Your task to perform on an android device: change notifications settings Image 0: 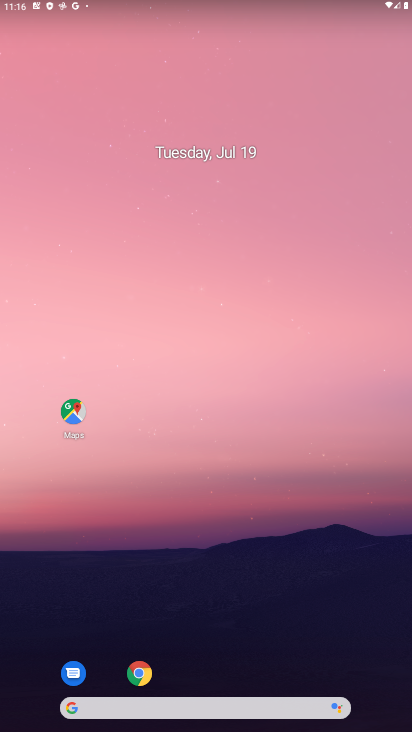
Step 0: drag from (315, 673) to (284, 428)
Your task to perform on an android device: change notifications settings Image 1: 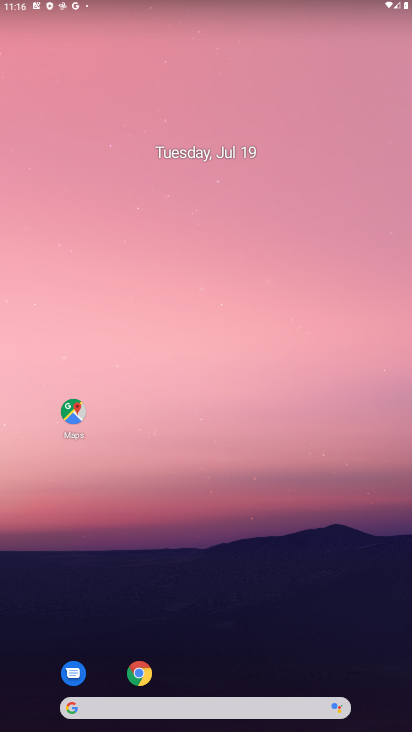
Step 1: drag from (261, 683) to (222, 22)
Your task to perform on an android device: change notifications settings Image 2: 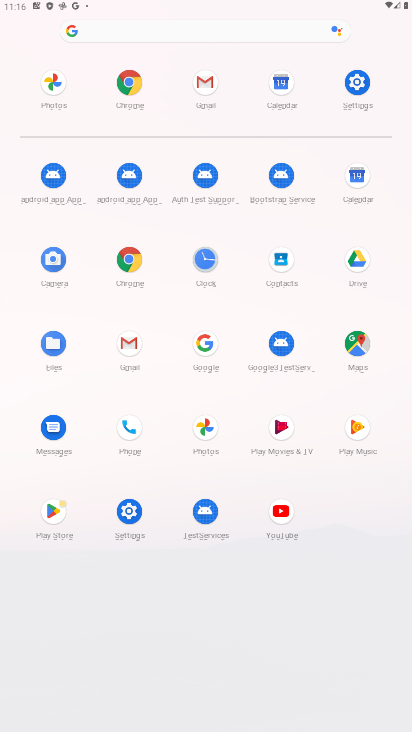
Step 2: click (339, 97)
Your task to perform on an android device: change notifications settings Image 3: 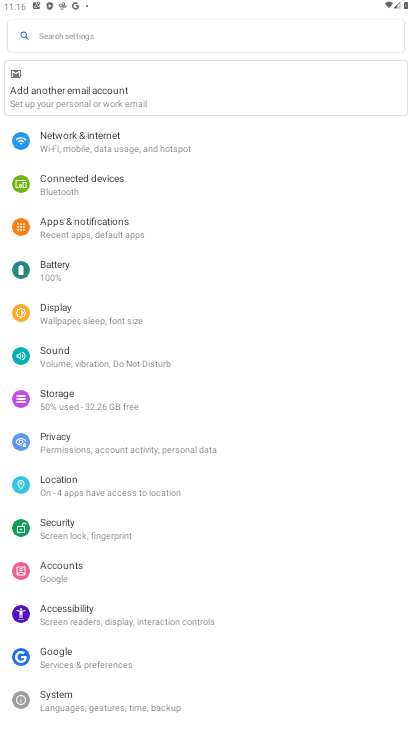
Step 3: click (208, 233)
Your task to perform on an android device: change notifications settings Image 4: 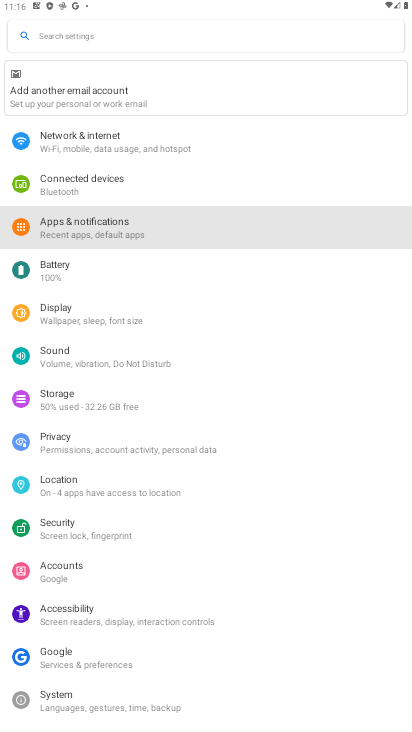
Step 4: task complete